Your task to perform on an android device: Open wifi settings Image 0: 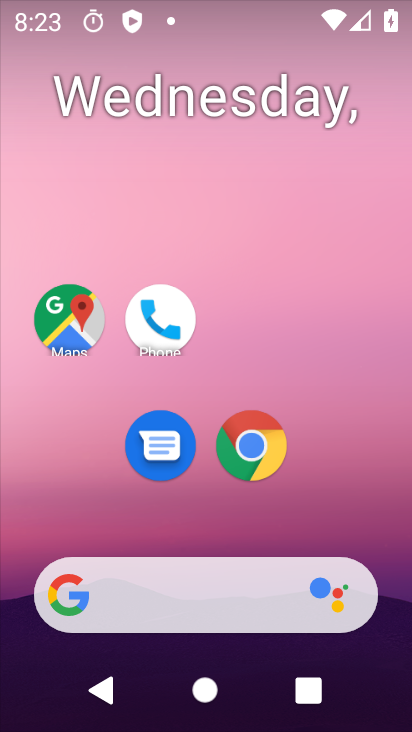
Step 0: drag from (351, 475) to (244, 25)
Your task to perform on an android device: Open wifi settings Image 1: 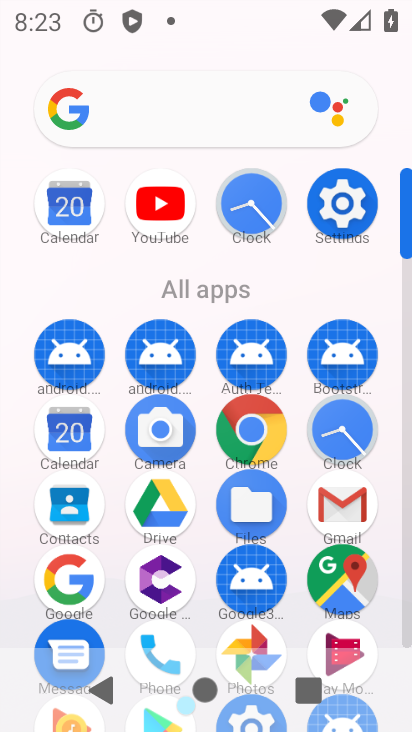
Step 1: click (351, 227)
Your task to perform on an android device: Open wifi settings Image 2: 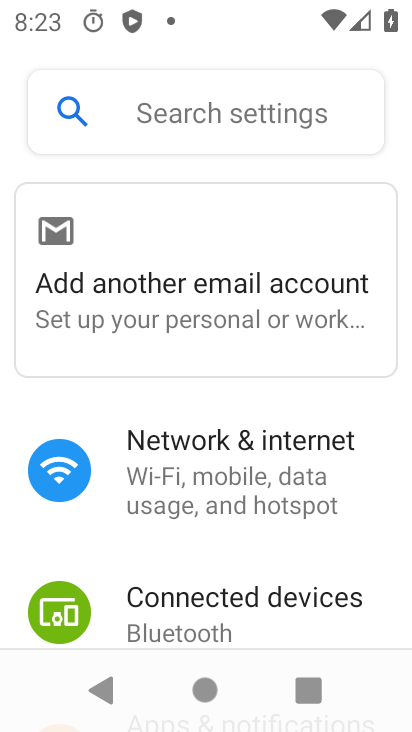
Step 2: click (200, 475)
Your task to perform on an android device: Open wifi settings Image 3: 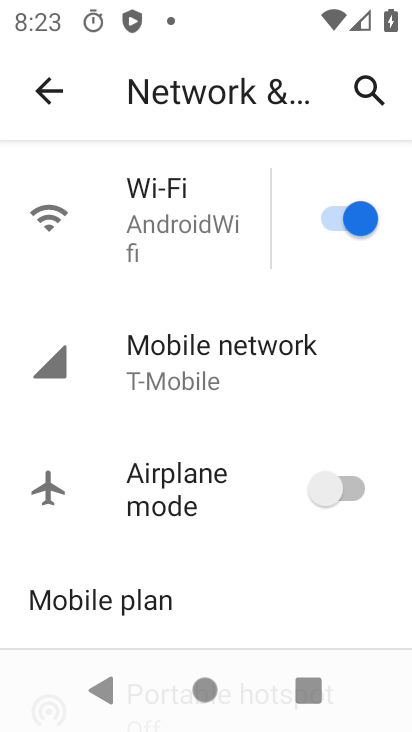
Step 3: click (143, 214)
Your task to perform on an android device: Open wifi settings Image 4: 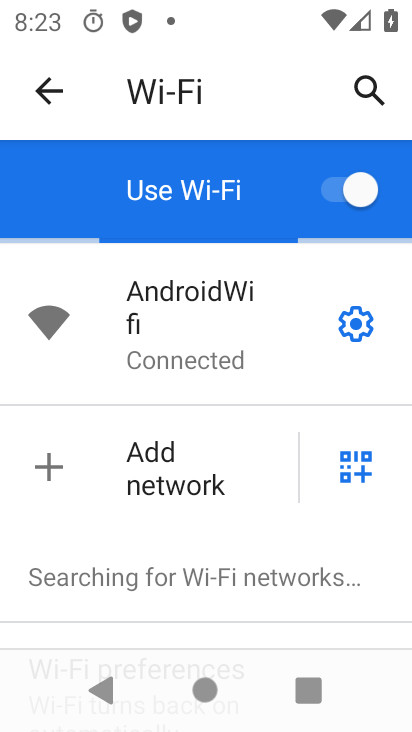
Step 4: task complete